Your task to perform on an android device: turn on translation in the chrome app Image 0: 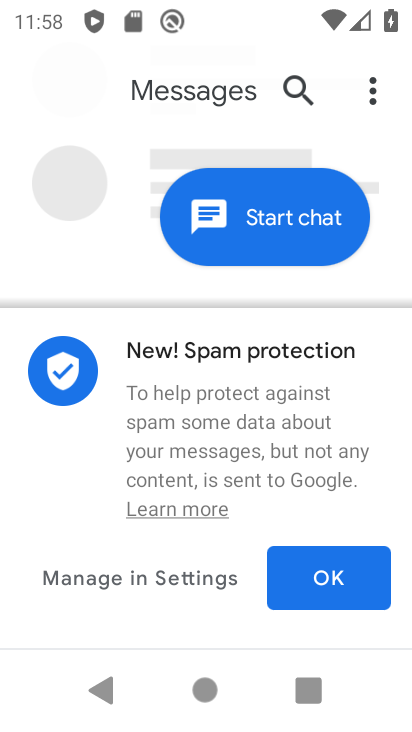
Step 0: press home button
Your task to perform on an android device: turn on translation in the chrome app Image 1: 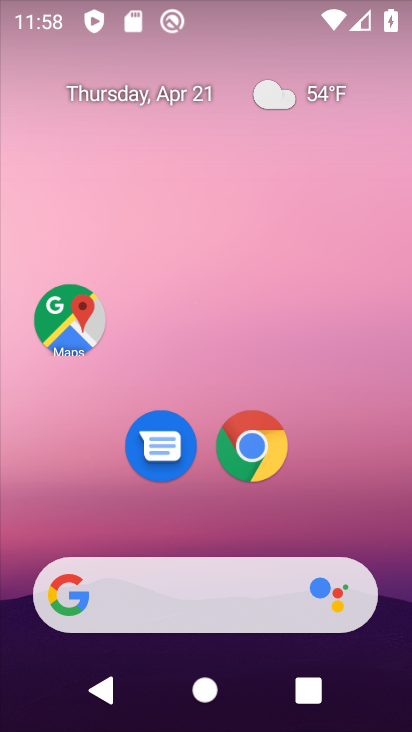
Step 1: drag from (394, 565) to (240, 145)
Your task to perform on an android device: turn on translation in the chrome app Image 2: 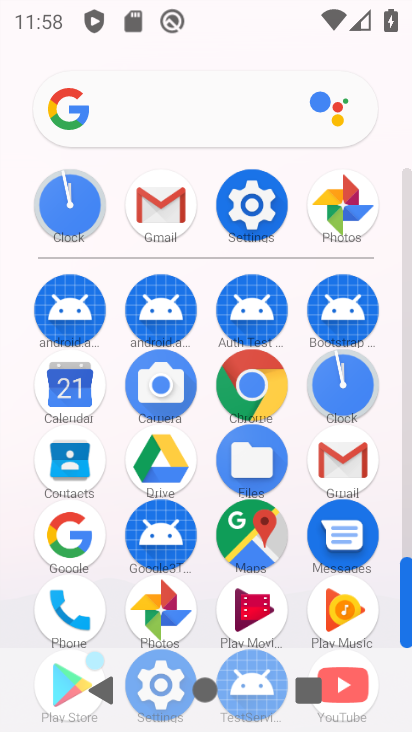
Step 2: click (275, 379)
Your task to perform on an android device: turn on translation in the chrome app Image 3: 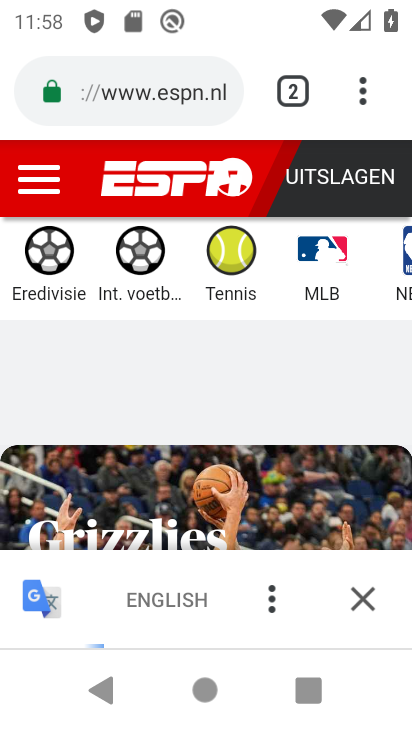
Step 3: click (362, 120)
Your task to perform on an android device: turn on translation in the chrome app Image 4: 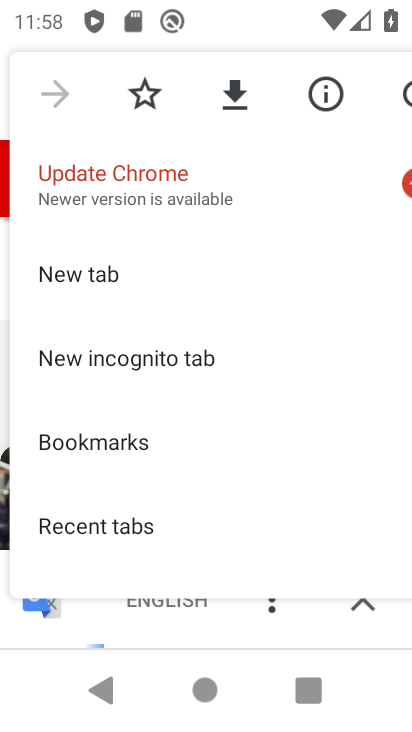
Step 4: click (361, 119)
Your task to perform on an android device: turn on translation in the chrome app Image 5: 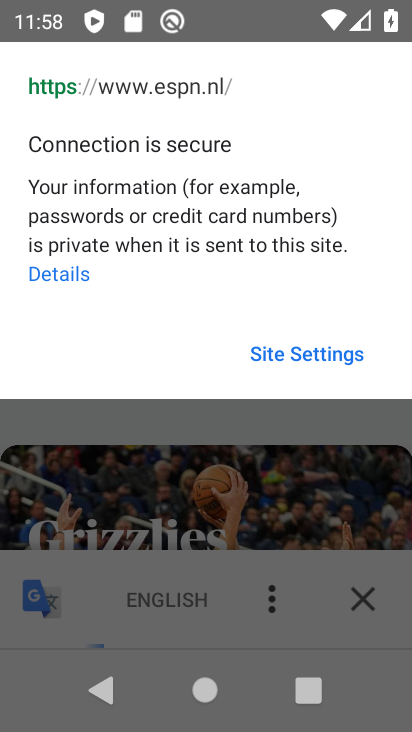
Step 5: press back button
Your task to perform on an android device: turn on translation in the chrome app Image 6: 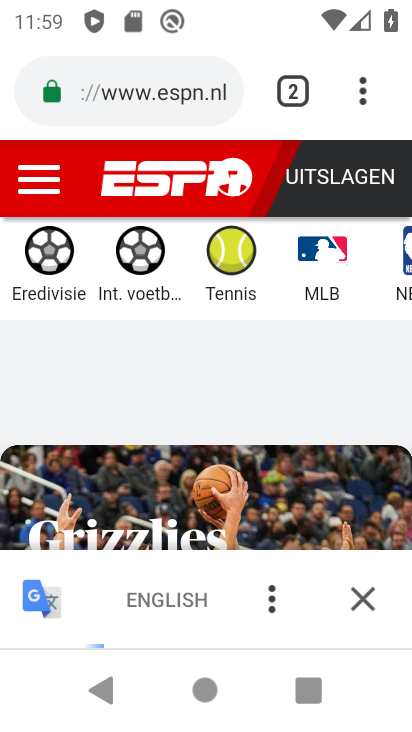
Step 6: click (364, 130)
Your task to perform on an android device: turn on translation in the chrome app Image 7: 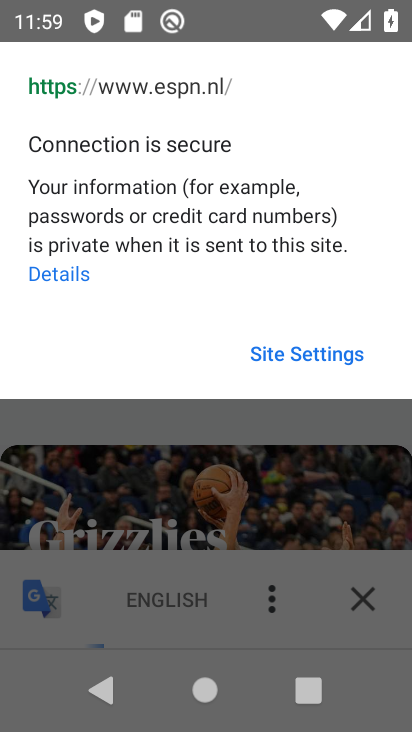
Step 7: press back button
Your task to perform on an android device: turn on translation in the chrome app Image 8: 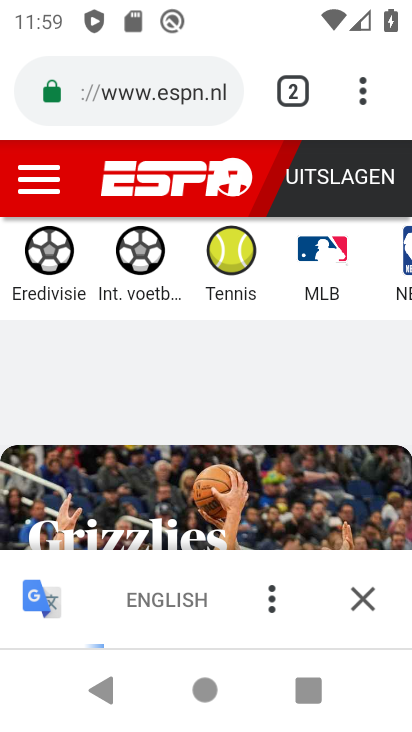
Step 8: drag from (363, 99) to (233, 474)
Your task to perform on an android device: turn on translation in the chrome app Image 9: 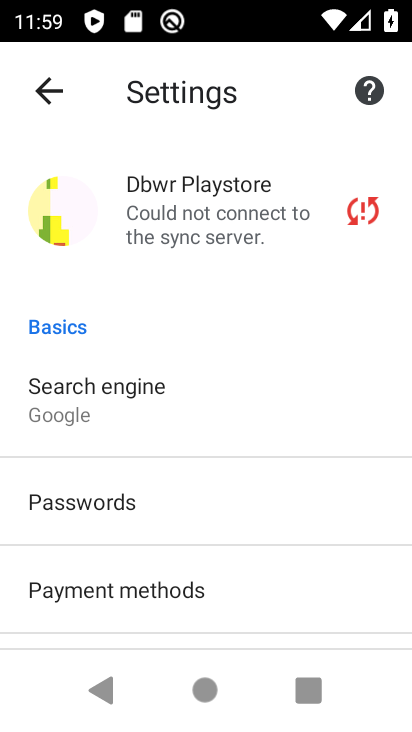
Step 9: drag from (285, 606) to (248, 92)
Your task to perform on an android device: turn on translation in the chrome app Image 10: 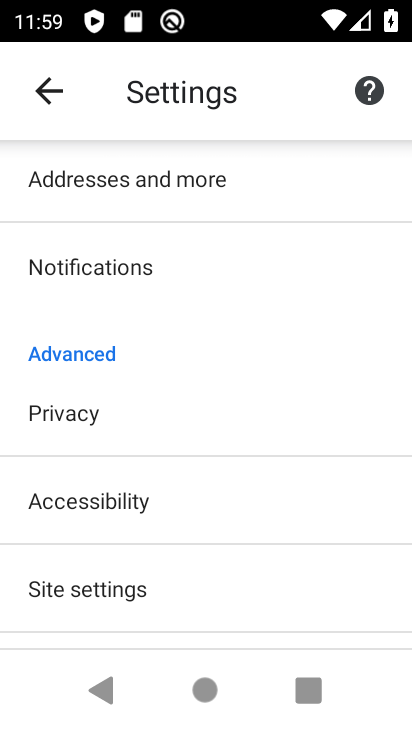
Step 10: drag from (249, 536) to (233, 256)
Your task to perform on an android device: turn on translation in the chrome app Image 11: 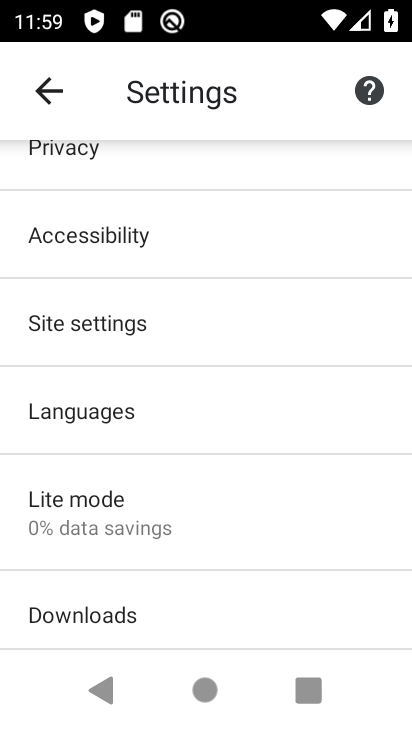
Step 11: click (199, 403)
Your task to perform on an android device: turn on translation in the chrome app Image 12: 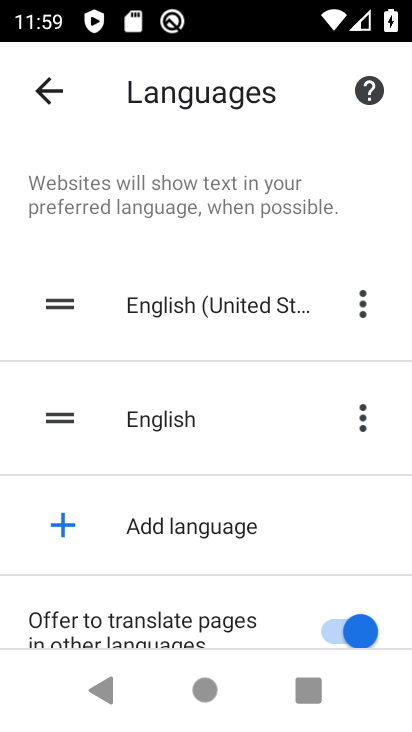
Step 12: task complete